Your task to perform on an android device: Open location settings Image 0: 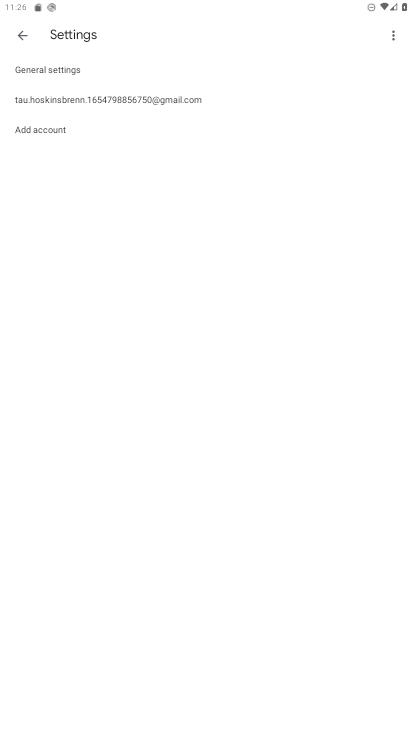
Step 0: press home button
Your task to perform on an android device: Open location settings Image 1: 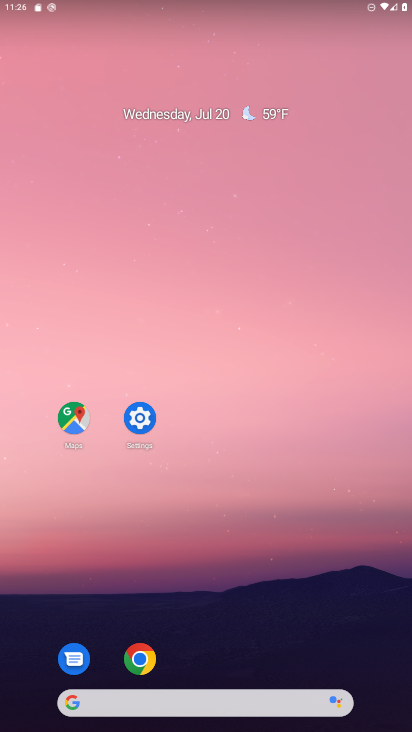
Step 1: click (136, 407)
Your task to perform on an android device: Open location settings Image 2: 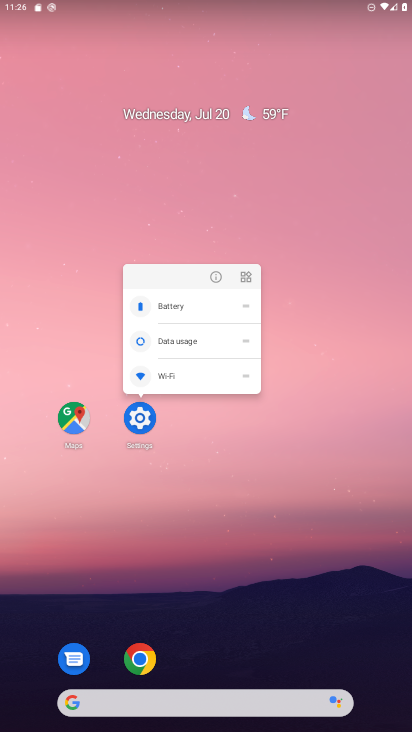
Step 2: click (142, 410)
Your task to perform on an android device: Open location settings Image 3: 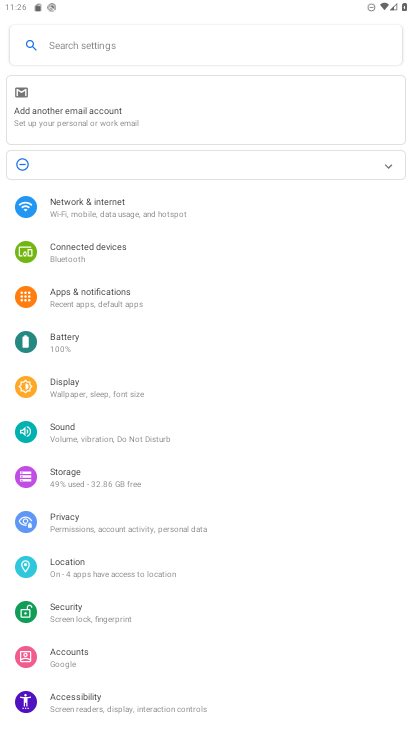
Step 3: click (86, 570)
Your task to perform on an android device: Open location settings Image 4: 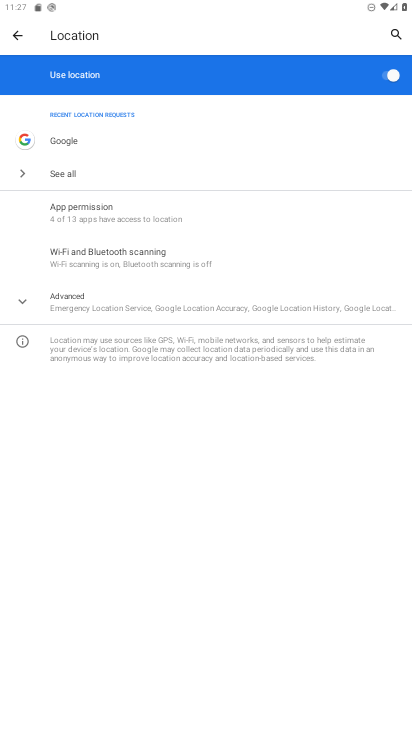
Step 4: click (19, 299)
Your task to perform on an android device: Open location settings Image 5: 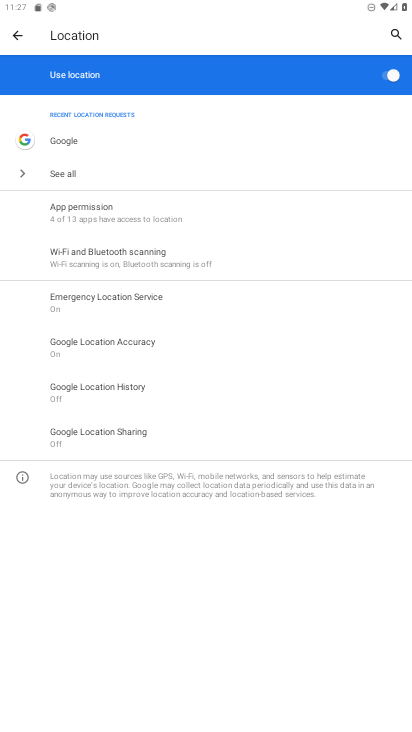
Step 5: task complete